Your task to perform on an android device: Open Google Maps Image 0: 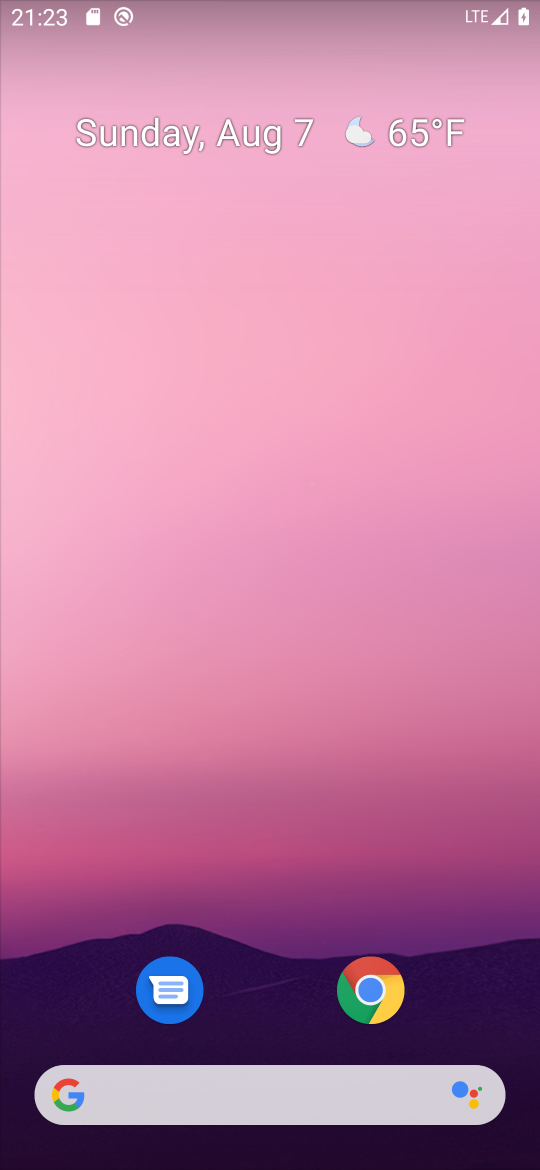
Step 0: drag from (283, 943) to (308, 0)
Your task to perform on an android device: Open Google Maps Image 1: 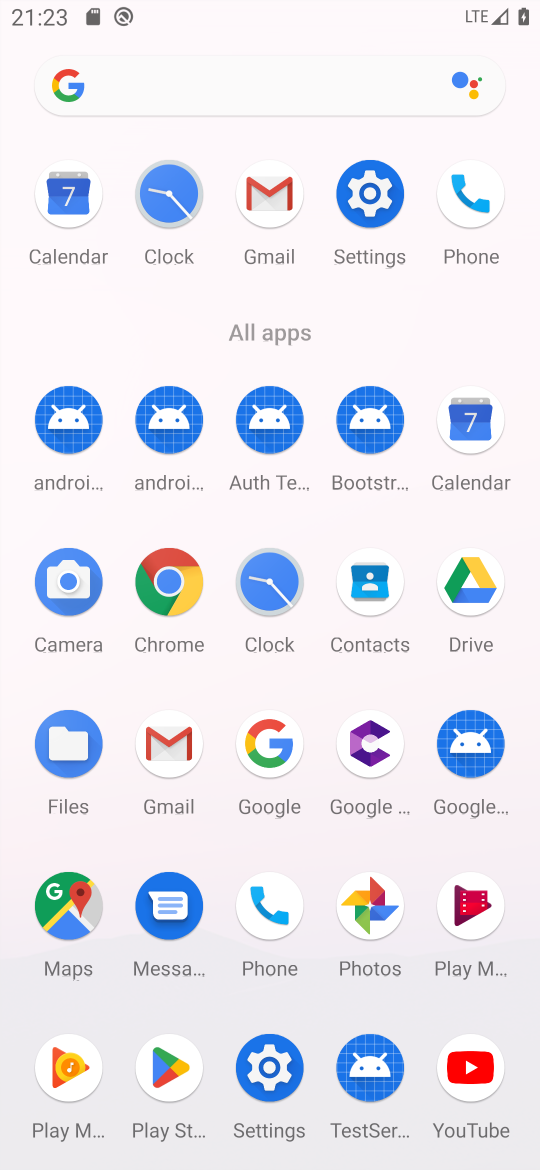
Step 1: click (62, 908)
Your task to perform on an android device: Open Google Maps Image 2: 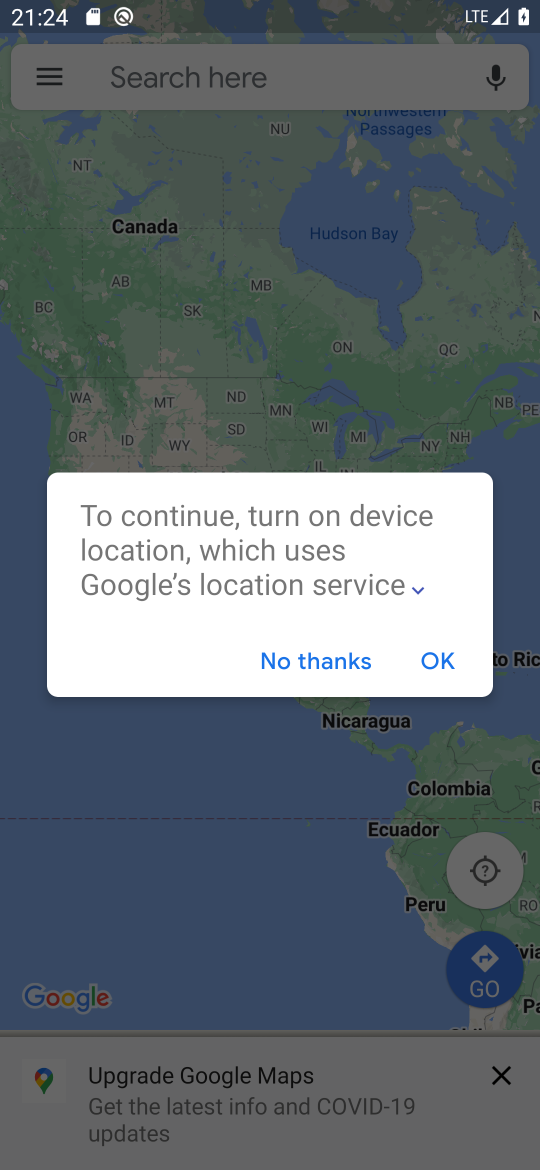
Step 2: click (442, 655)
Your task to perform on an android device: Open Google Maps Image 3: 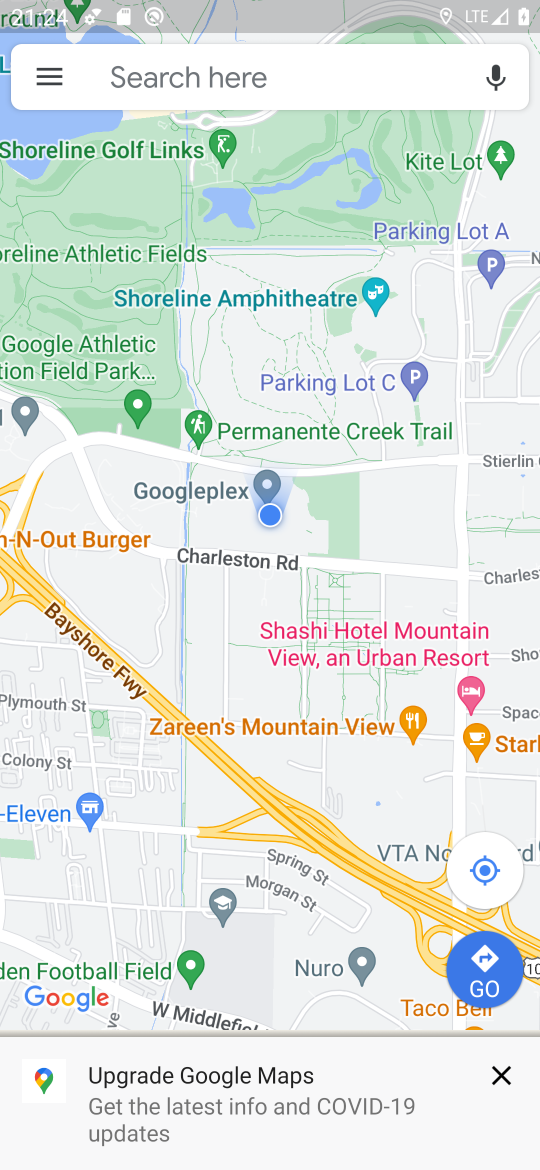
Step 3: task complete